Your task to perform on an android device: Open Maps and search for coffee Image 0: 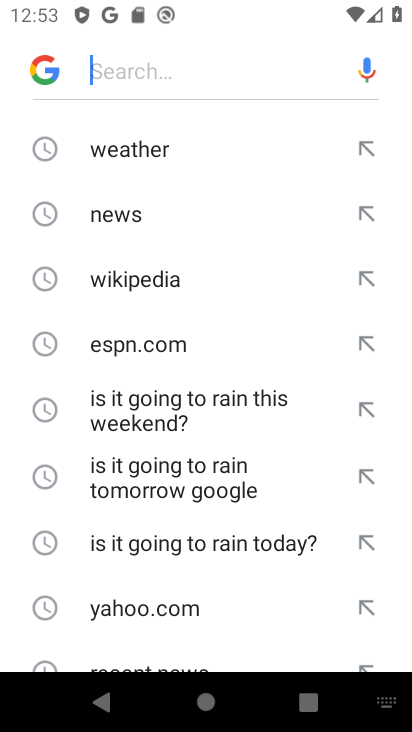
Step 0: press home button
Your task to perform on an android device: Open Maps and search for coffee Image 1: 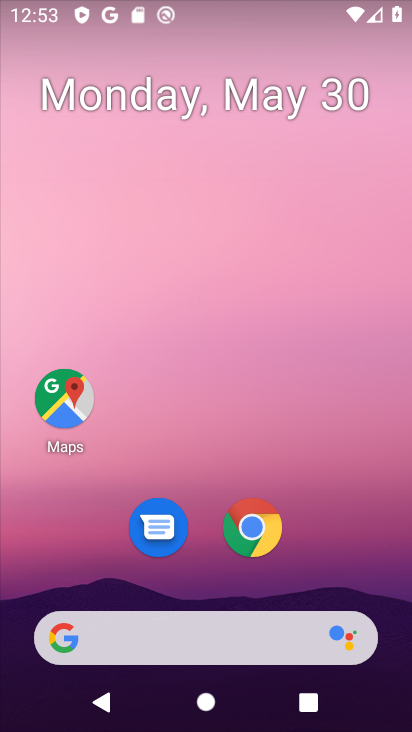
Step 1: click (76, 396)
Your task to perform on an android device: Open Maps and search for coffee Image 2: 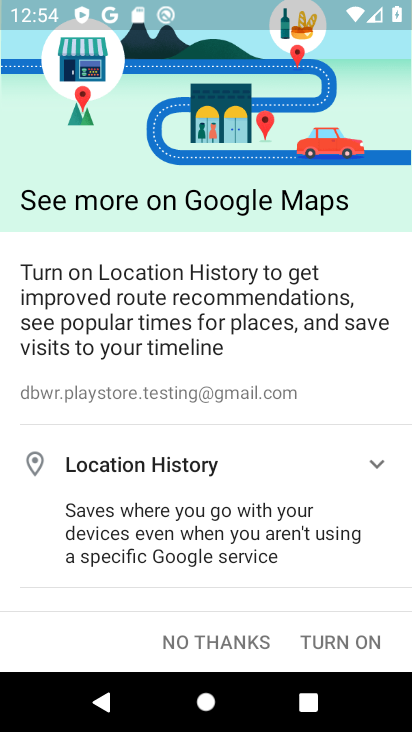
Step 2: click (229, 636)
Your task to perform on an android device: Open Maps and search for coffee Image 3: 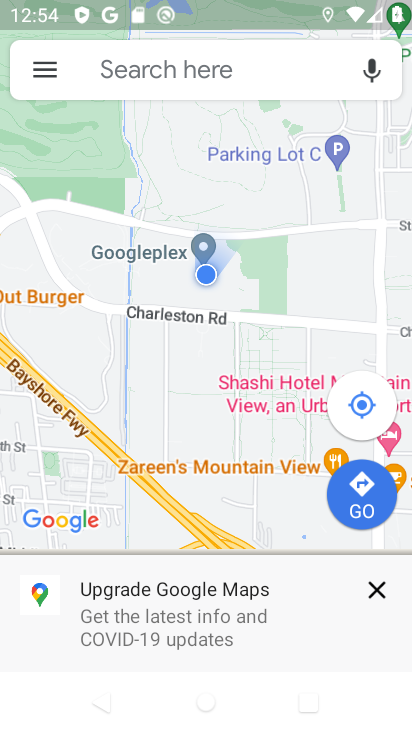
Step 3: click (180, 70)
Your task to perform on an android device: Open Maps and search for coffee Image 4: 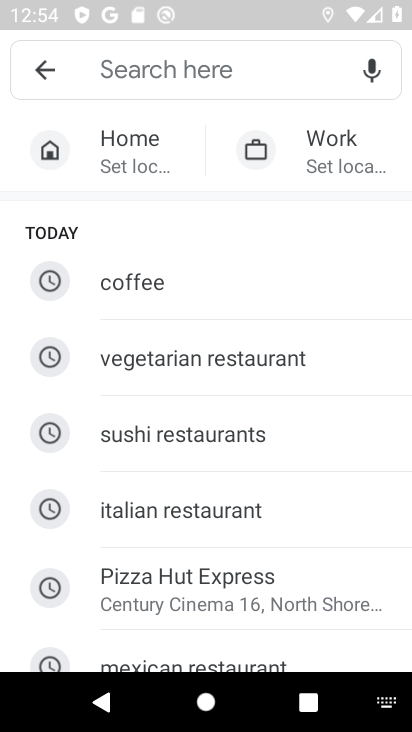
Step 4: click (158, 292)
Your task to perform on an android device: Open Maps and search for coffee Image 5: 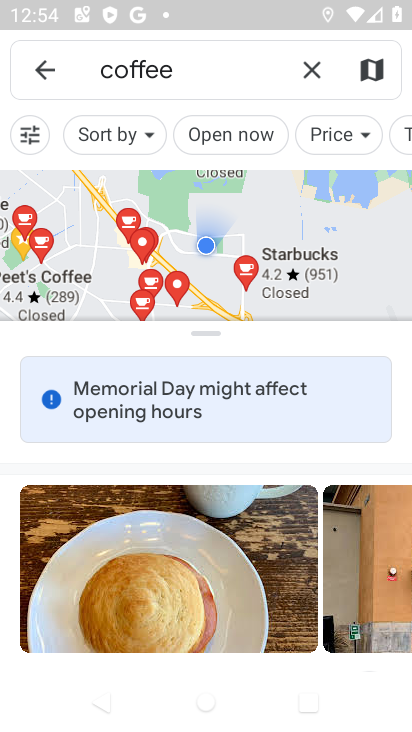
Step 5: task complete